Your task to perform on an android device: empty trash in the gmail app Image 0: 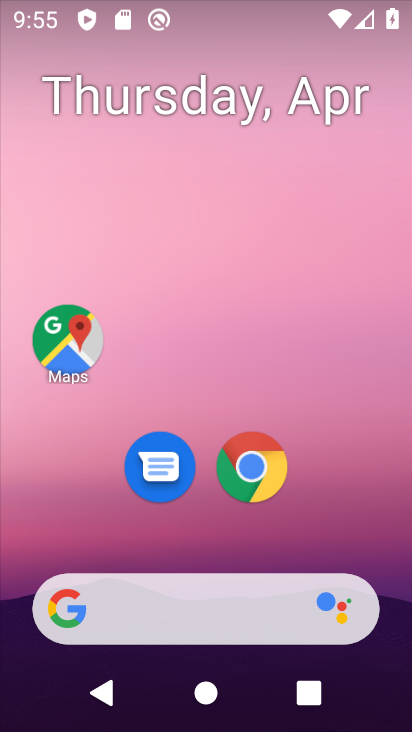
Step 0: click (407, 587)
Your task to perform on an android device: empty trash in the gmail app Image 1: 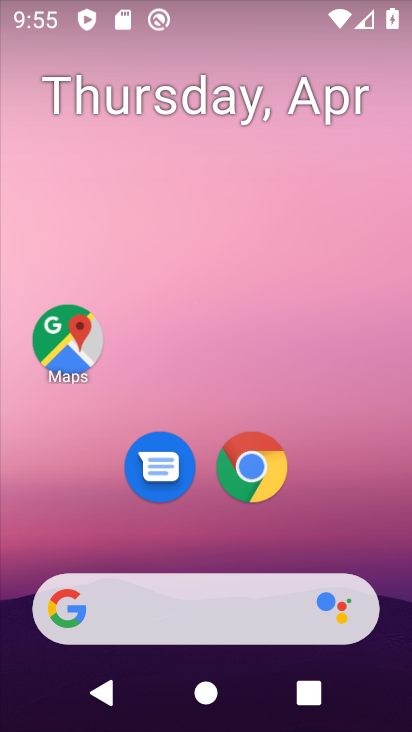
Step 1: drag from (375, 531) to (310, 191)
Your task to perform on an android device: empty trash in the gmail app Image 2: 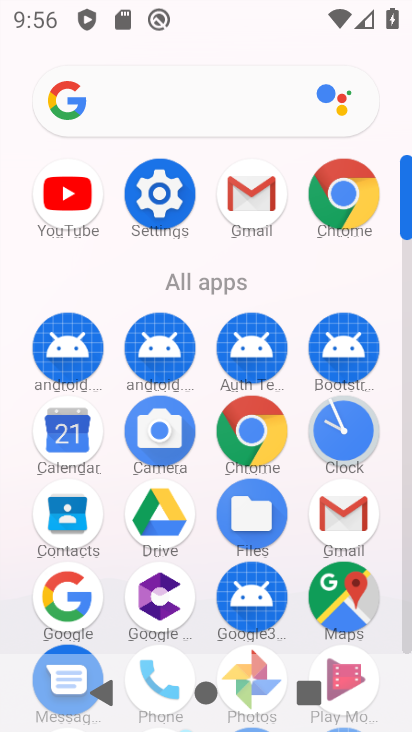
Step 2: click (256, 210)
Your task to perform on an android device: empty trash in the gmail app Image 3: 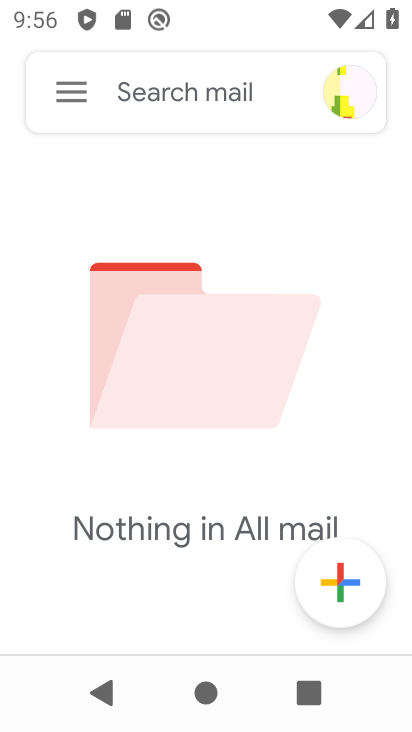
Step 3: click (76, 95)
Your task to perform on an android device: empty trash in the gmail app Image 4: 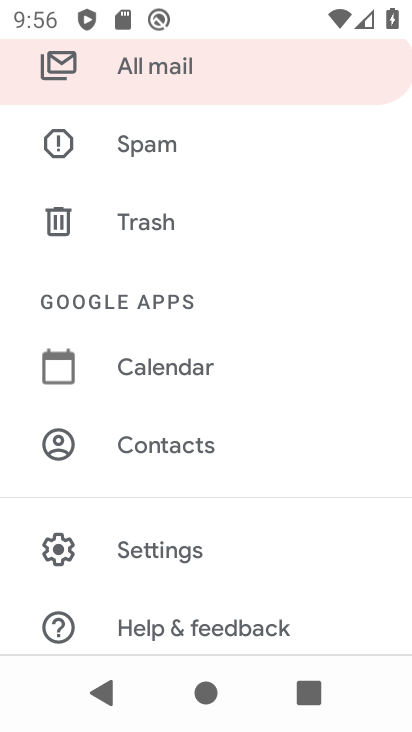
Step 4: click (145, 211)
Your task to perform on an android device: empty trash in the gmail app Image 5: 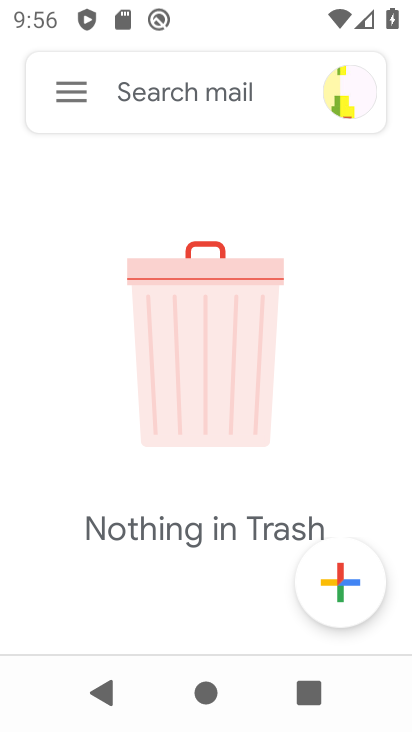
Step 5: task complete